Your task to perform on an android device: Search for "amazon basics triple a" on target.com, select the first entry, add it to the cart, then select checkout. Image 0: 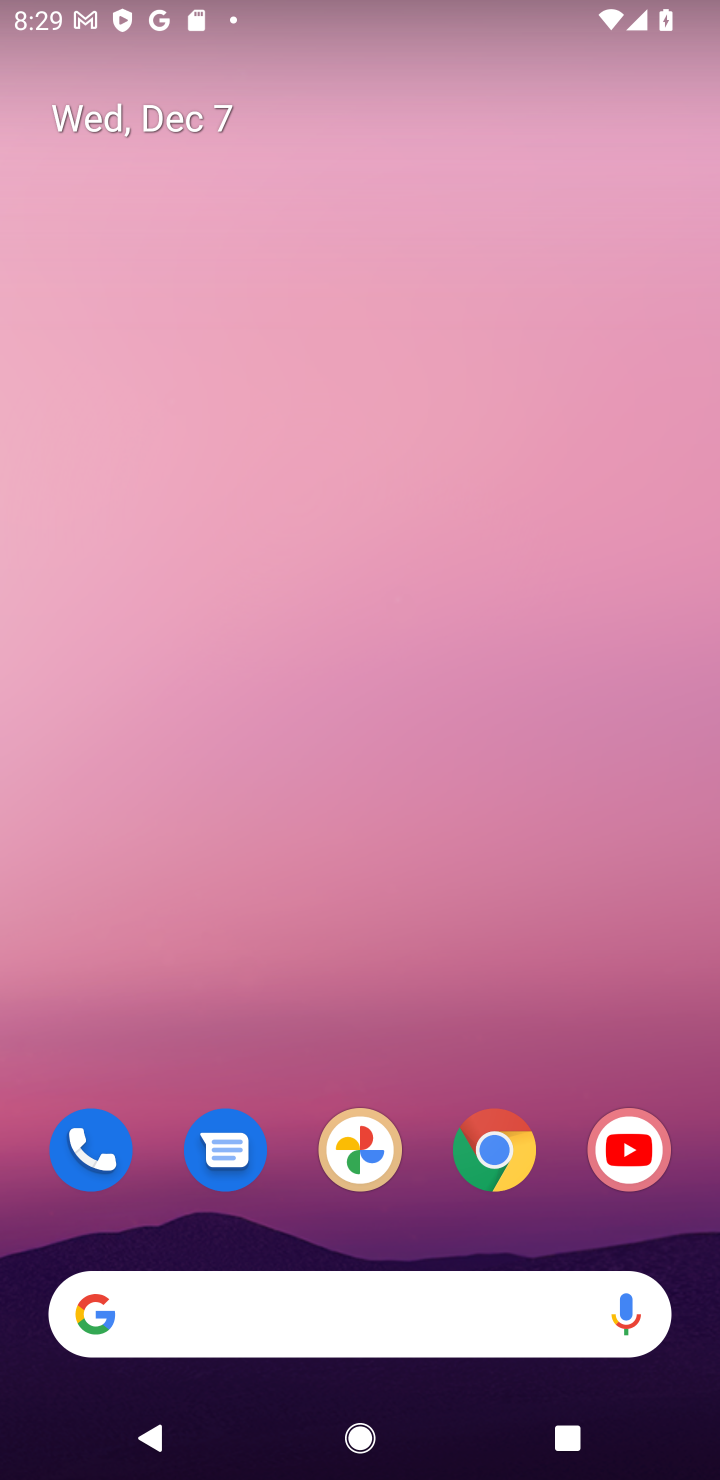
Step 0: click (479, 1144)
Your task to perform on an android device: Search for "amazon basics triple a" on target.com, select the first entry, add it to the cart, then select checkout. Image 1: 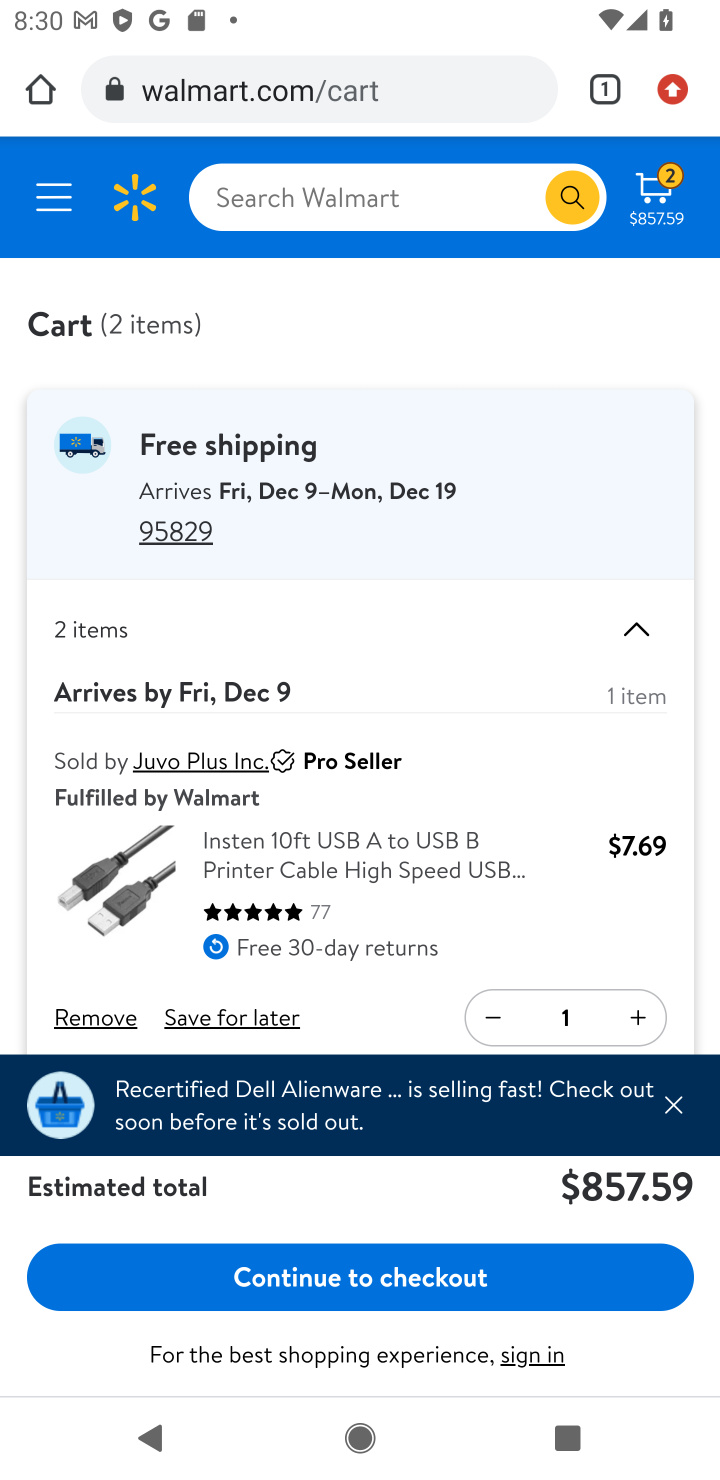
Step 1: click (418, 94)
Your task to perform on an android device: Search for "amazon basics triple a" on target.com, select the first entry, add it to the cart, then select checkout. Image 2: 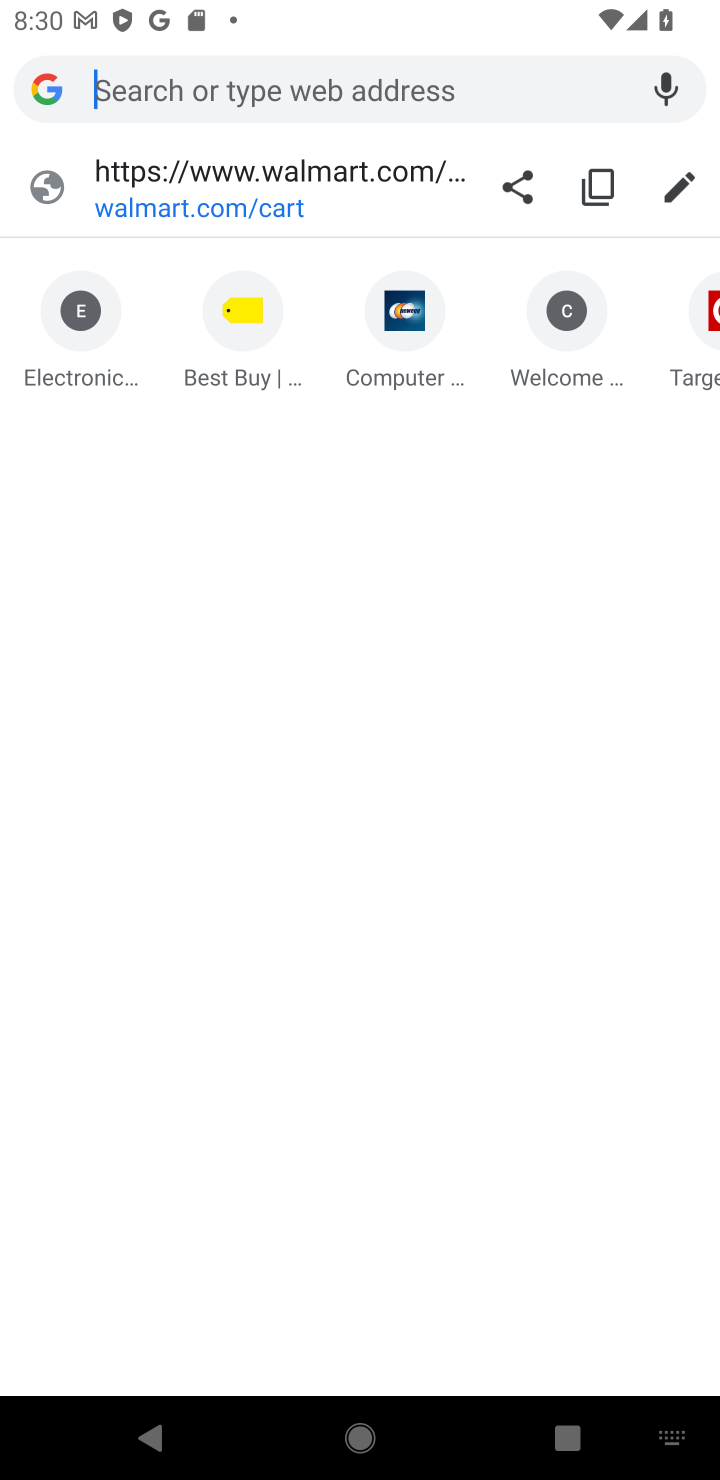
Step 2: type "target.com"
Your task to perform on an android device: Search for "amazon basics triple a" on target.com, select the first entry, add it to the cart, then select checkout. Image 3: 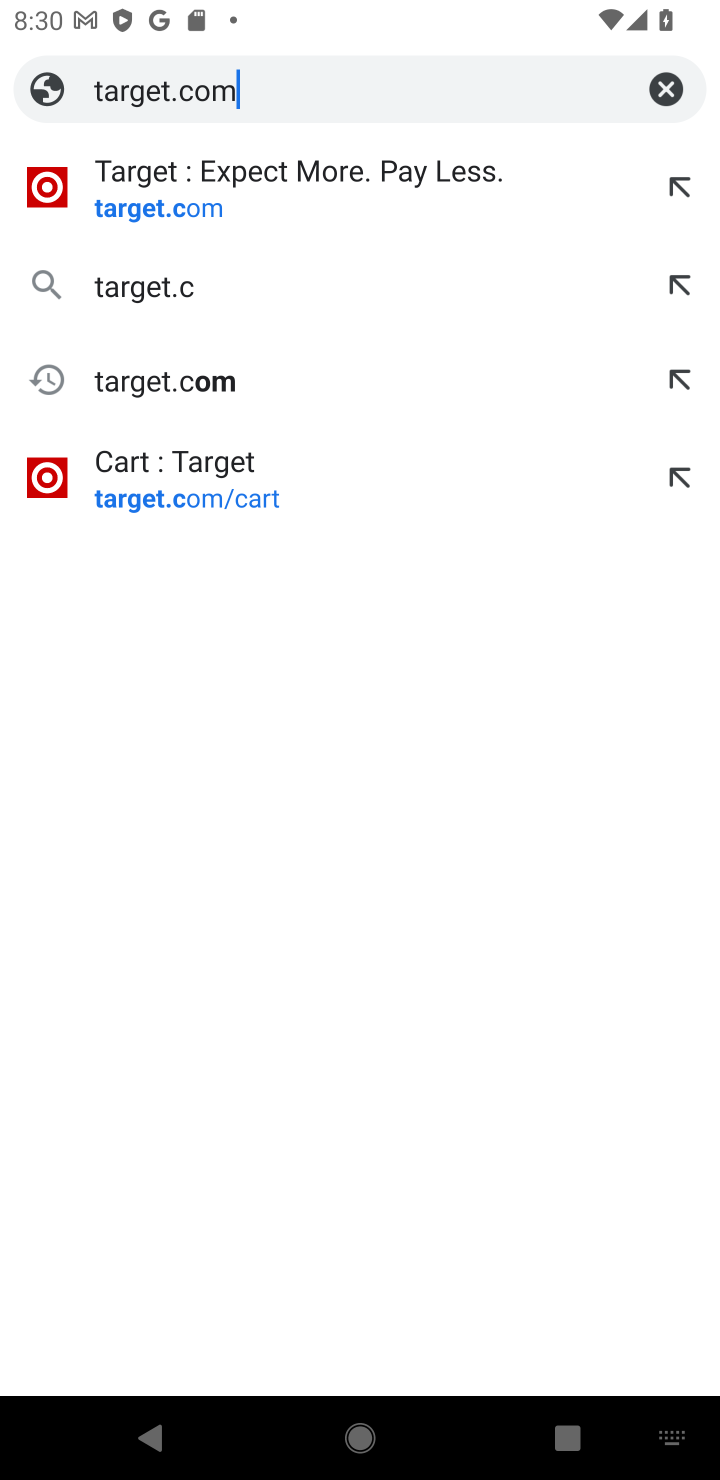
Step 3: press enter
Your task to perform on an android device: Search for "amazon basics triple a" on target.com, select the first entry, add it to the cart, then select checkout. Image 4: 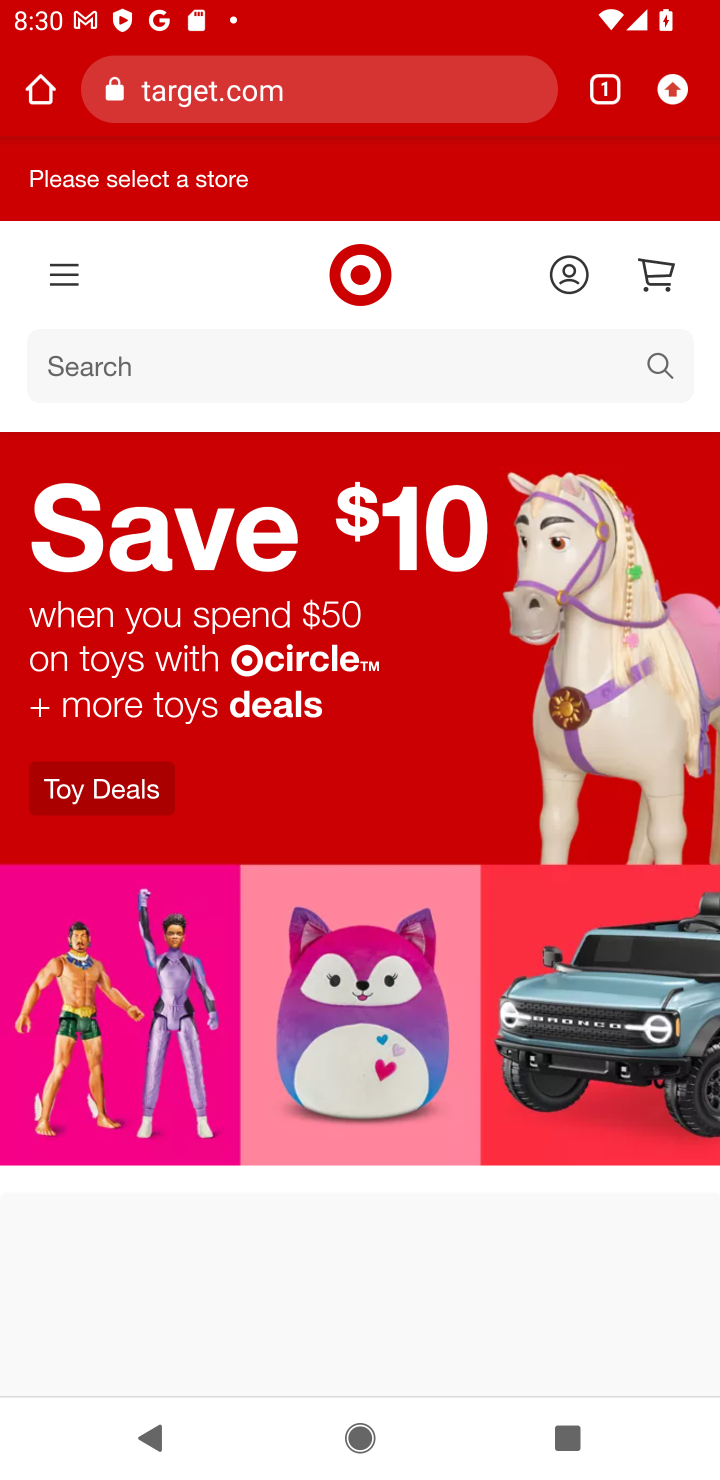
Step 4: click (635, 352)
Your task to perform on an android device: Search for "amazon basics triple a" on target.com, select the first entry, add it to the cart, then select checkout. Image 5: 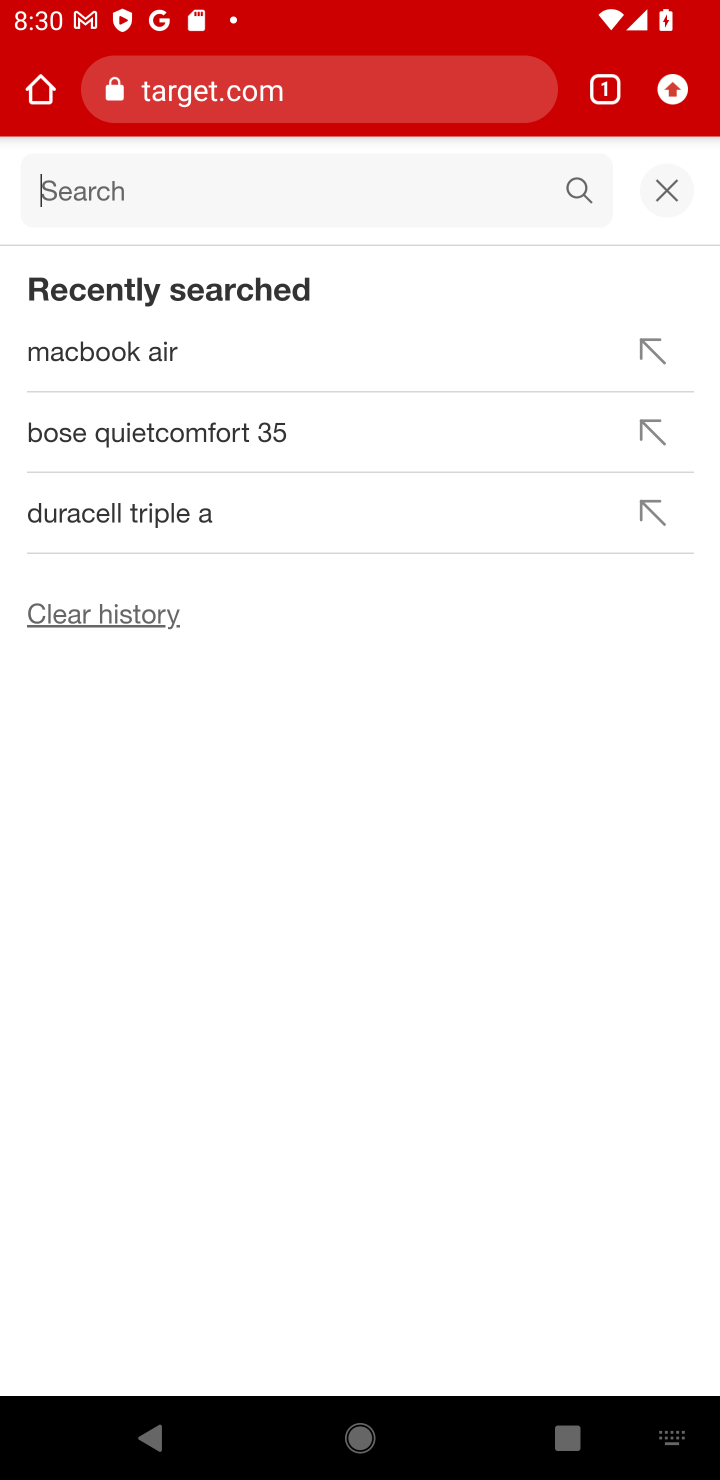
Step 5: type "amazon basics triple a"
Your task to perform on an android device: Search for "amazon basics triple a" on target.com, select the first entry, add it to the cart, then select checkout. Image 6: 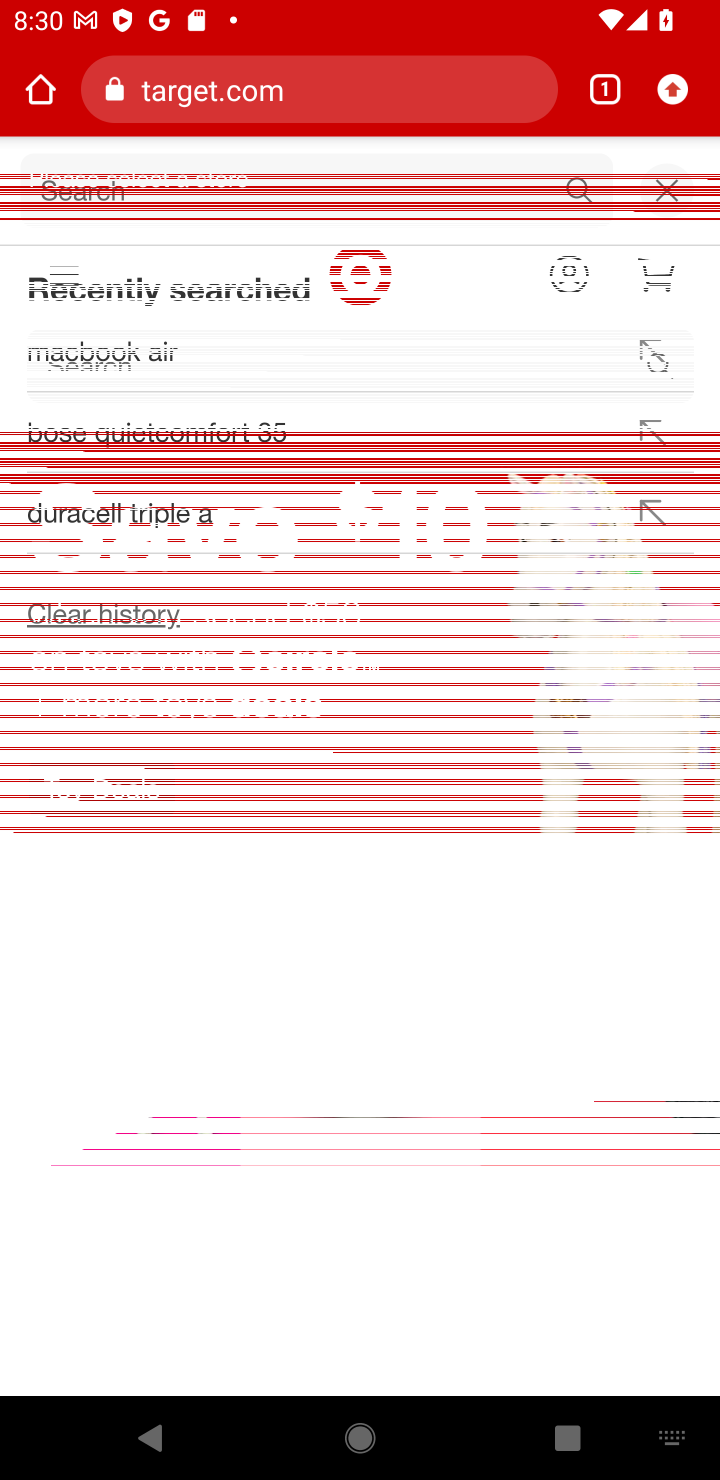
Step 6: press enter
Your task to perform on an android device: Search for "amazon basics triple a" on target.com, select the first entry, add it to the cart, then select checkout. Image 7: 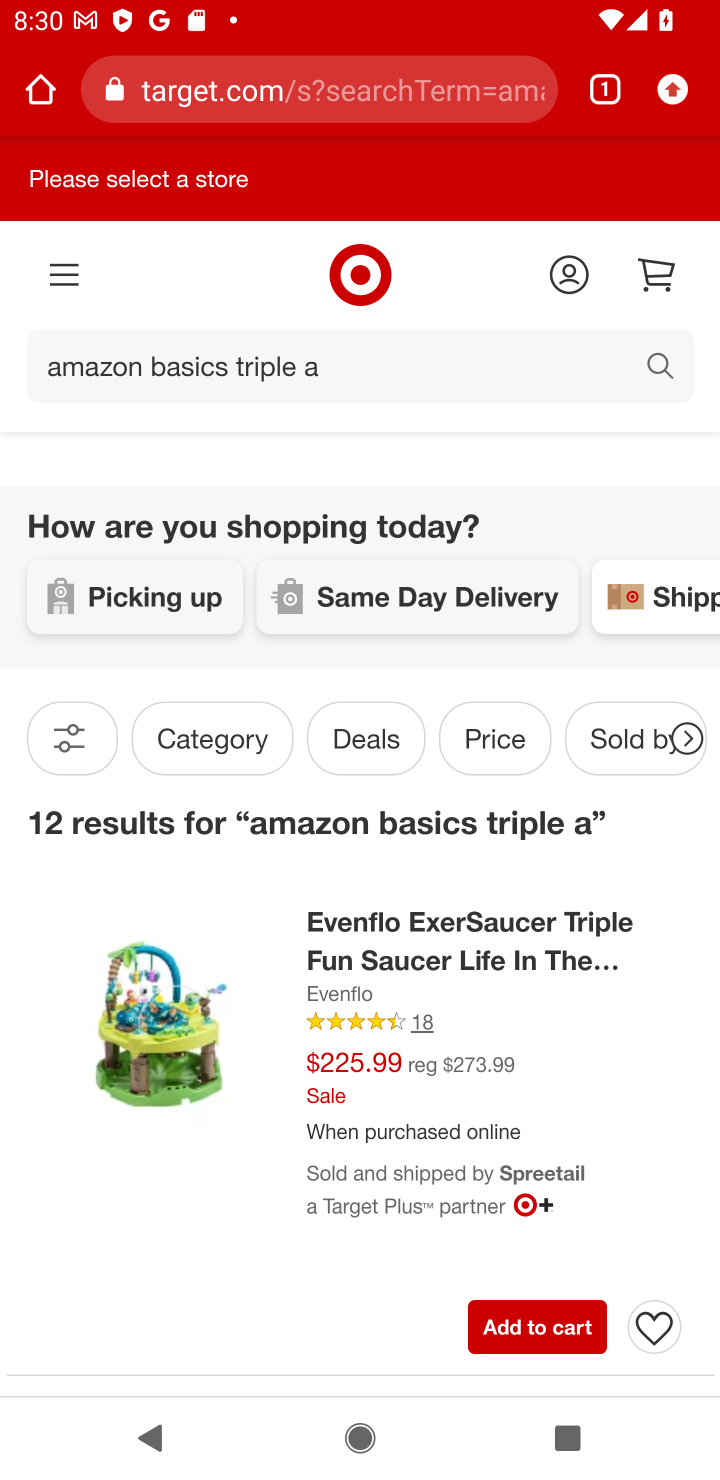
Step 7: task complete